Your task to perform on an android device: allow cookies in the chrome app Image 0: 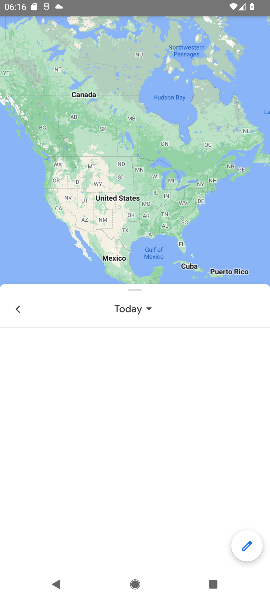
Step 0: press home button
Your task to perform on an android device: allow cookies in the chrome app Image 1: 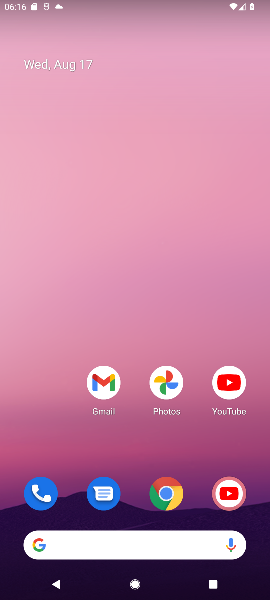
Step 1: click (166, 498)
Your task to perform on an android device: allow cookies in the chrome app Image 2: 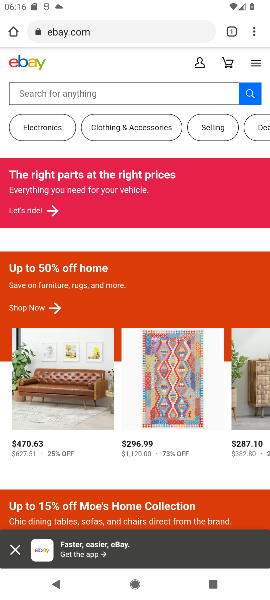
Step 2: drag from (248, 33) to (176, 420)
Your task to perform on an android device: allow cookies in the chrome app Image 3: 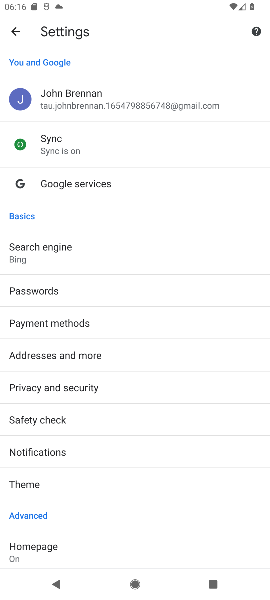
Step 3: drag from (126, 501) to (137, 127)
Your task to perform on an android device: allow cookies in the chrome app Image 4: 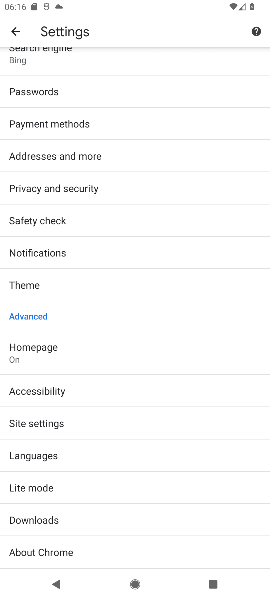
Step 4: click (41, 423)
Your task to perform on an android device: allow cookies in the chrome app Image 5: 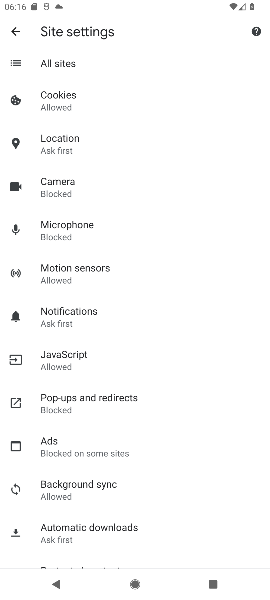
Step 5: click (61, 105)
Your task to perform on an android device: allow cookies in the chrome app Image 6: 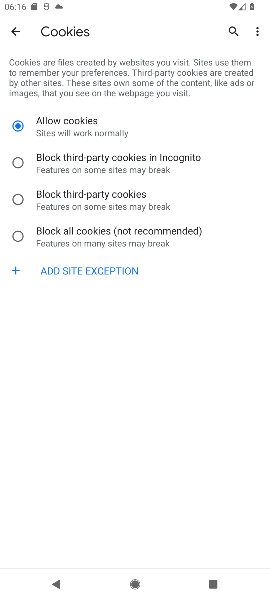
Step 6: task complete